Your task to perform on an android device: Show the shopping cart on amazon. Image 0: 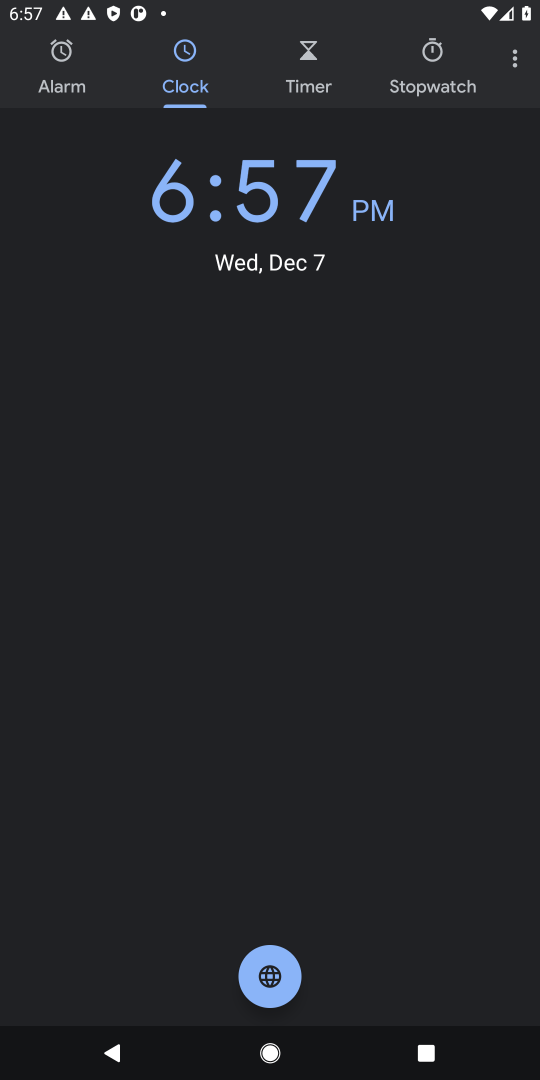
Step 0: press home button
Your task to perform on an android device: Show the shopping cart on amazon. Image 1: 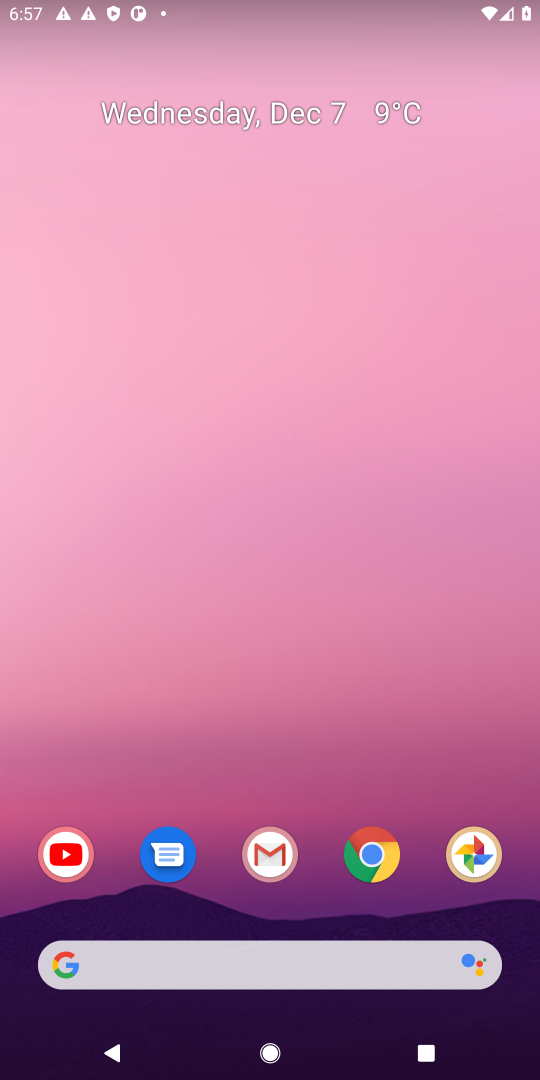
Step 1: click (319, 958)
Your task to perform on an android device: Show the shopping cart on amazon. Image 2: 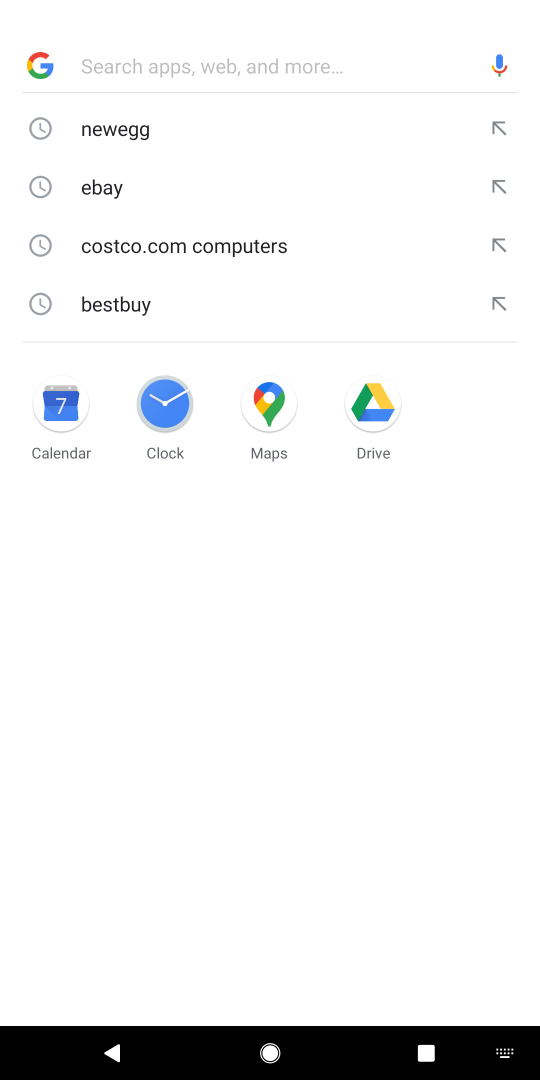
Step 2: type "amazon"
Your task to perform on an android device: Show the shopping cart on amazon. Image 3: 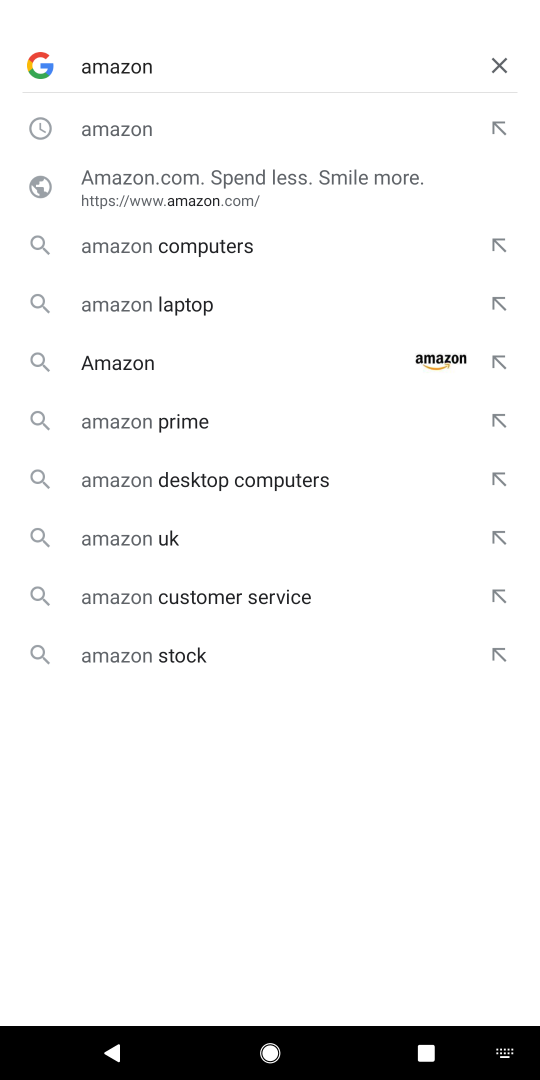
Step 3: click (197, 197)
Your task to perform on an android device: Show the shopping cart on amazon. Image 4: 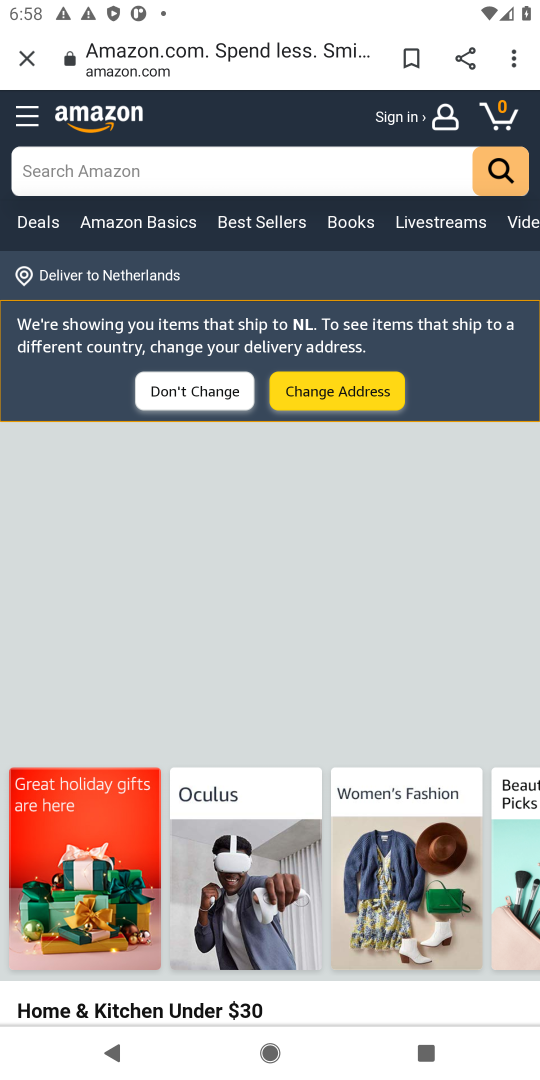
Step 4: click (194, 183)
Your task to perform on an android device: Show the shopping cart on amazon. Image 5: 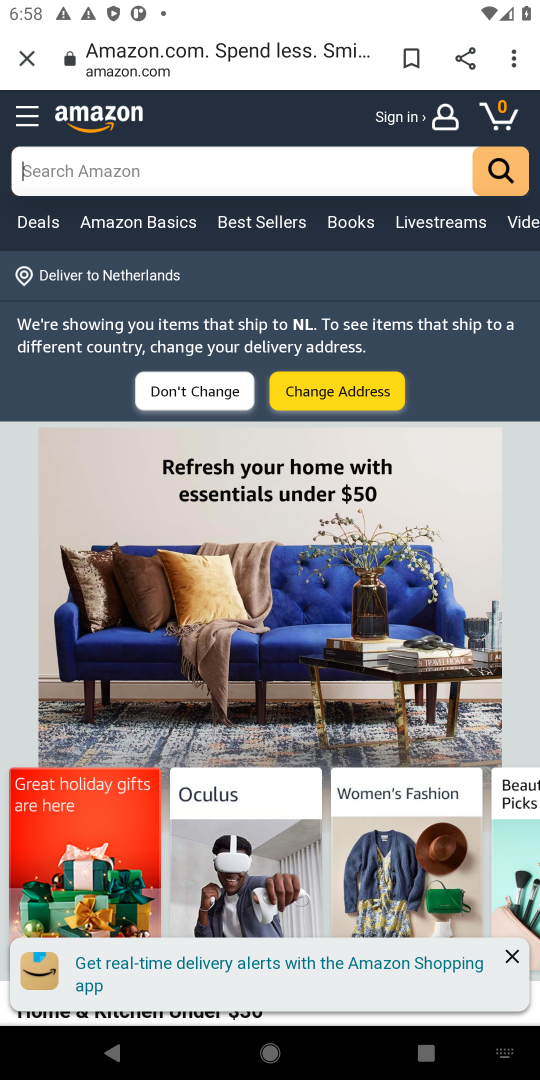
Step 5: click (501, 117)
Your task to perform on an android device: Show the shopping cart on amazon. Image 6: 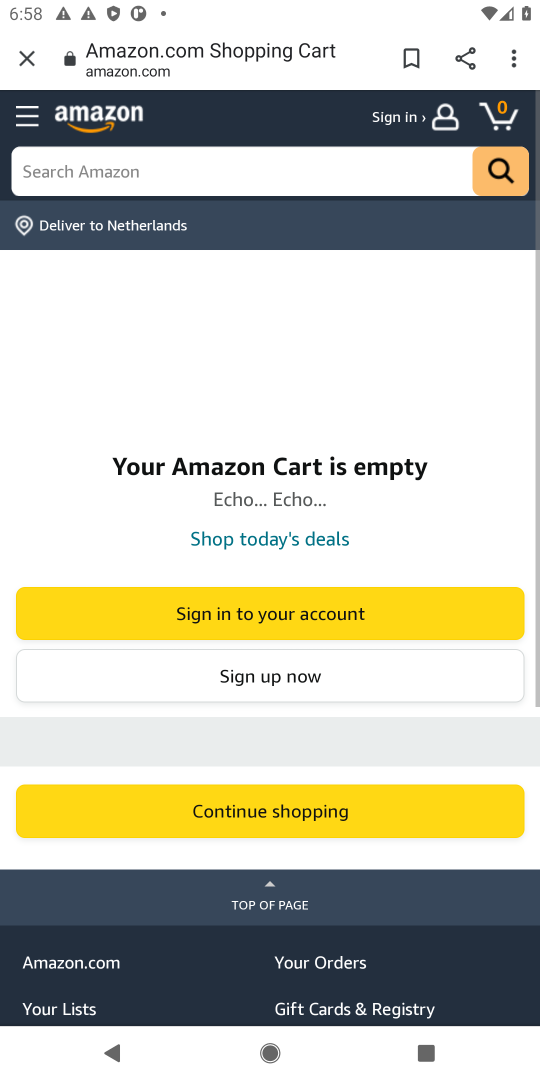
Step 6: task complete